Your task to perform on an android device: Clear the cart on walmart.com. Search for logitech g502 on walmart.com, select the first entry, and add it to the cart. Image 0: 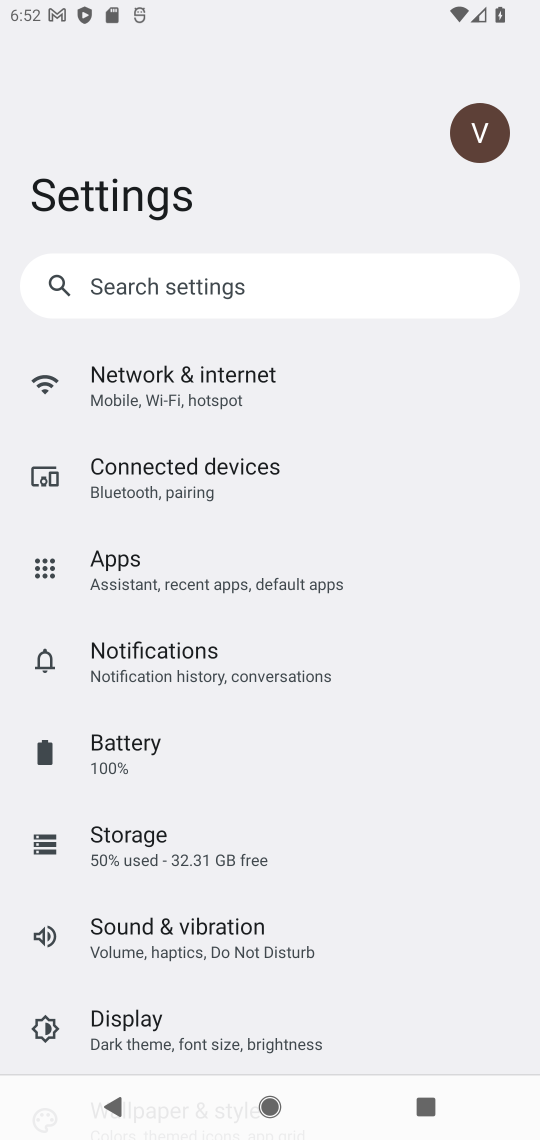
Step 0: press home button
Your task to perform on an android device: Clear the cart on walmart.com. Search for logitech g502 on walmart.com, select the first entry, and add it to the cart. Image 1: 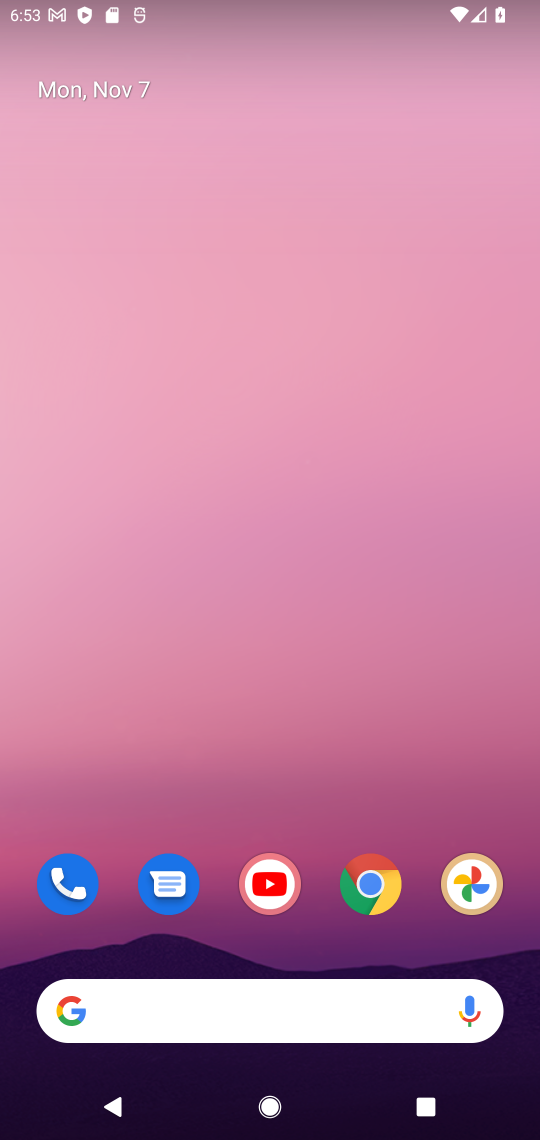
Step 1: click (370, 870)
Your task to perform on an android device: Clear the cart on walmart.com. Search for logitech g502 on walmart.com, select the first entry, and add it to the cart. Image 2: 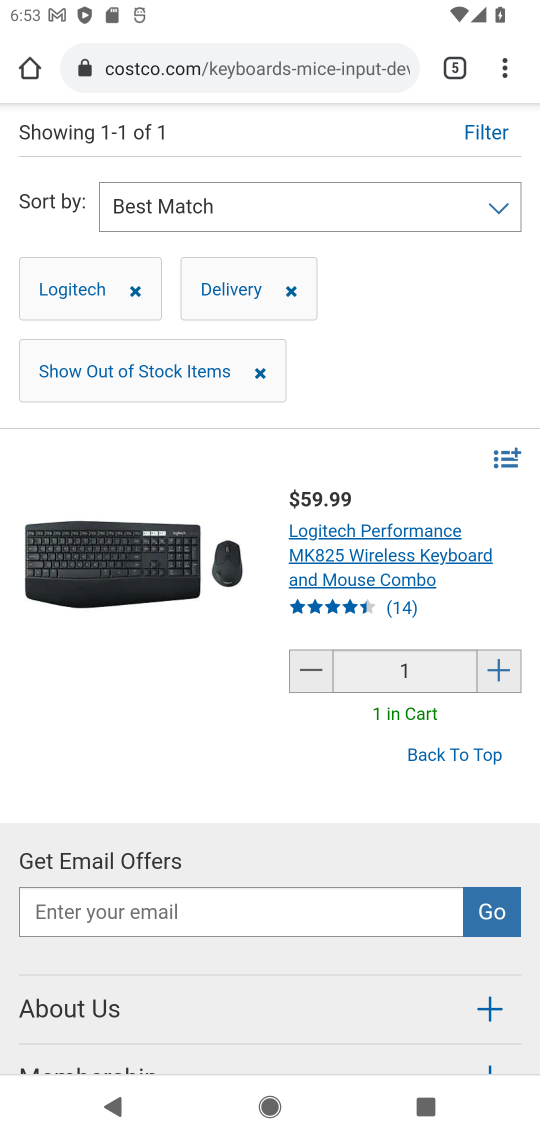
Step 2: click (451, 71)
Your task to perform on an android device: Clear the cart on walmart.com. Search for logitech g502 on walmart.com, select the first entry, and add it to the cart. Image 3: 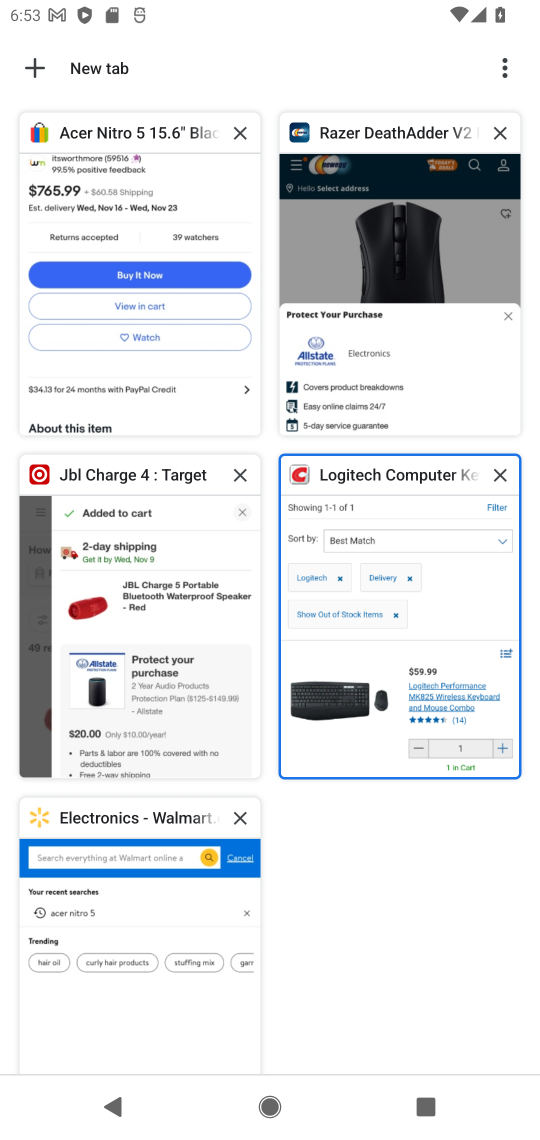
Step 3: click (132, 866)
Your task to perform on an android device: Clear the cart on walmart.com. Search for logitech g502 on walmart.com, select the first entry, and add it to the cart. Image 4: 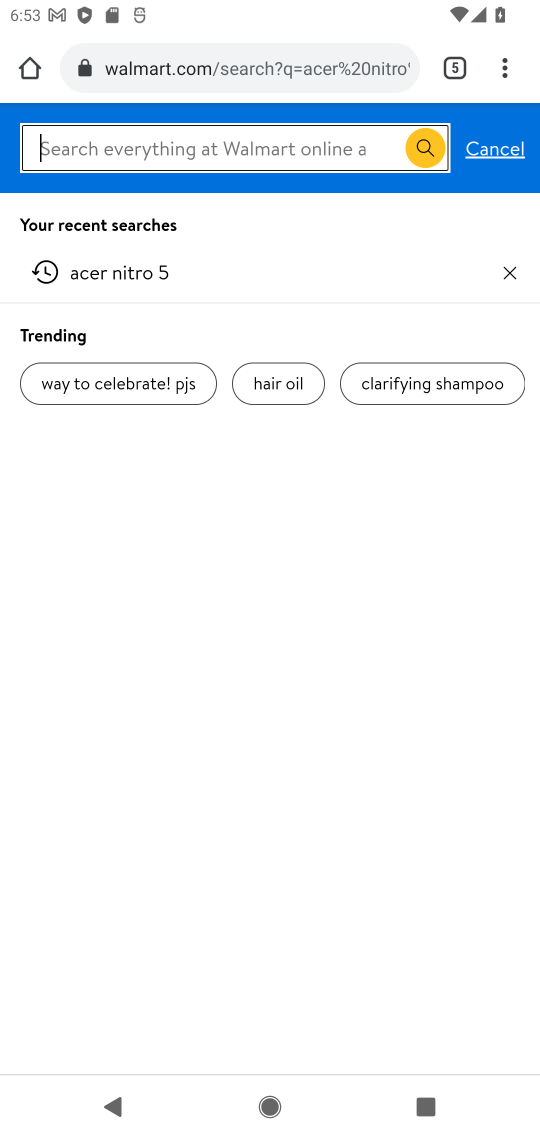
Step 4: type "logitech g502"
Your task to perform on an android device: Clear the cart on walmart.com. Search for logitech g502 on walmart.com, select the first entry, and add it to the cart. Image 5: 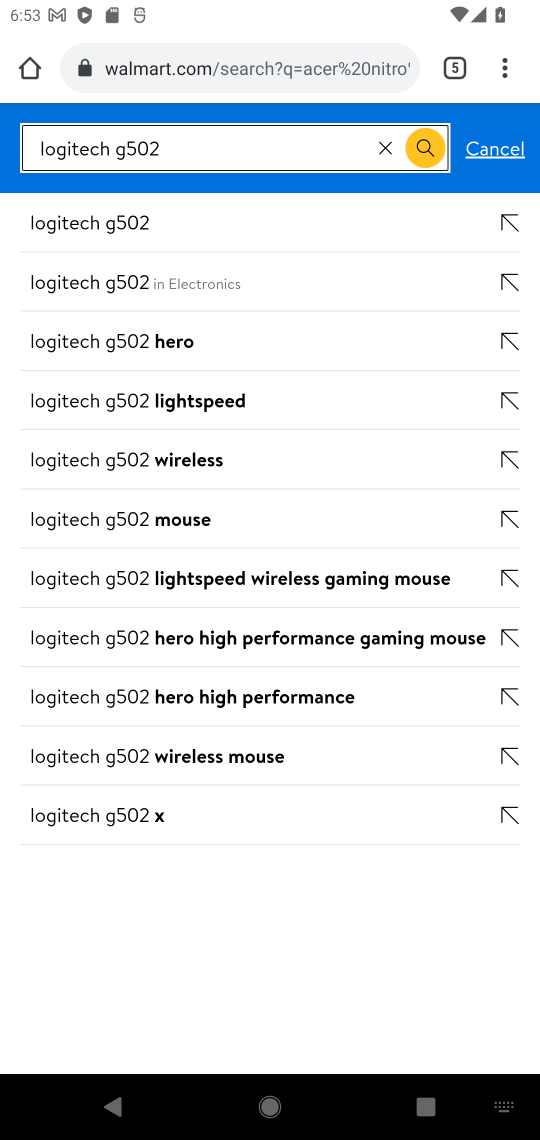
Step 5: click (46, 281)
Your task to perform on an android device: Clear the cart on walmart.com. Search for logitech g502 on walmart.com, select the first entry, and add it to the cart. Image 6: 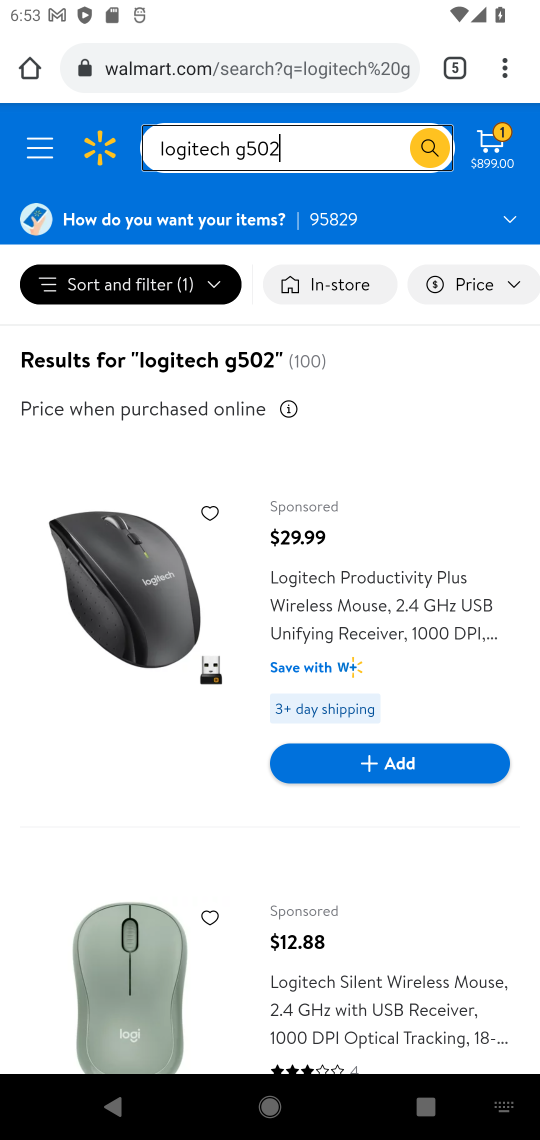
Step 6: click (379, 778)
Your task to perform on an android device: Clear the cart on walmart.com. Search for logitech g502 on walmart.com, select the first entry, and add it to the cart. Image 7: 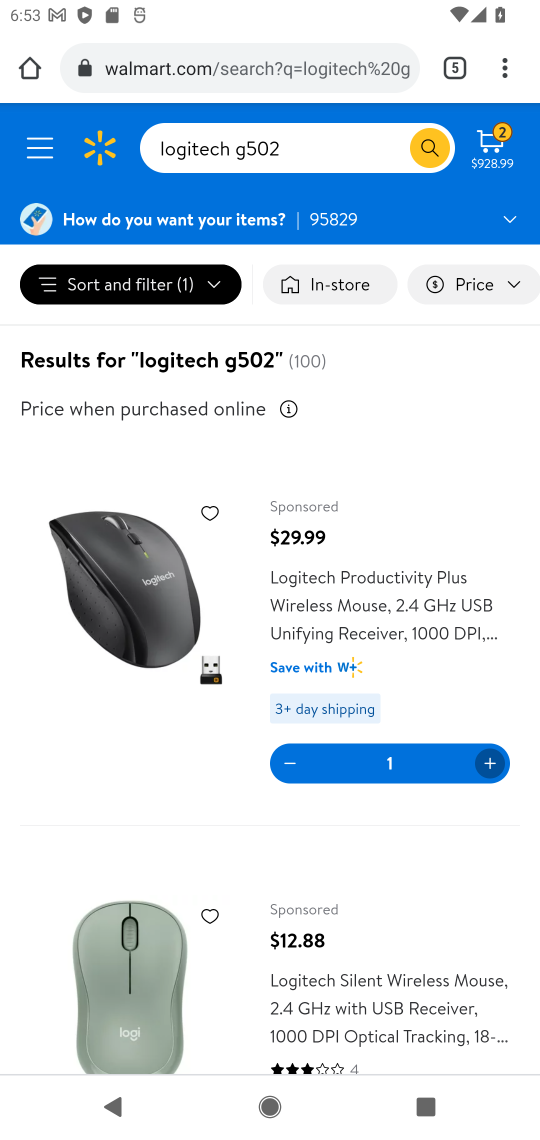
Step 7: task complete